Your task to perform on an android device: Go to Wikipedia Image 0: 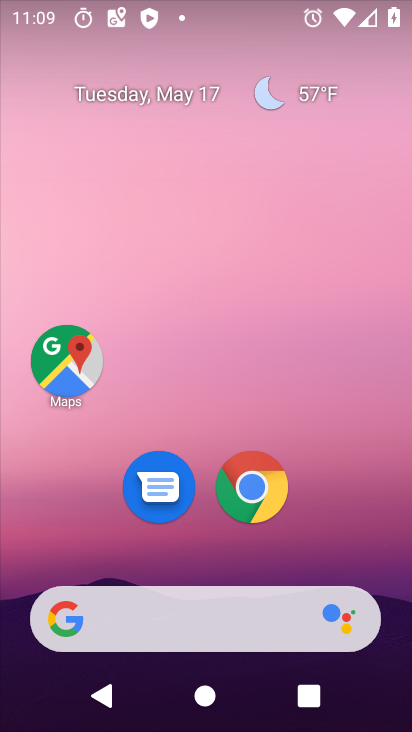
Step 0: click (247, 480)
Your task to perform on an android device: Go to Wikipedia Image 1: 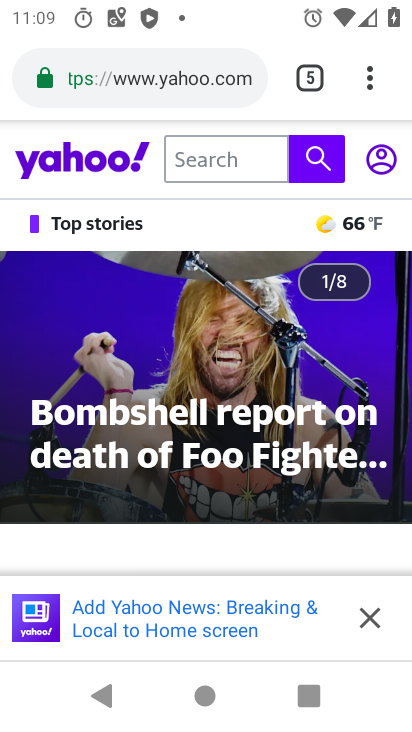
Step 1: click (370, 84)
Your task to perform on an android device: Go to Wikipedia Image 2: 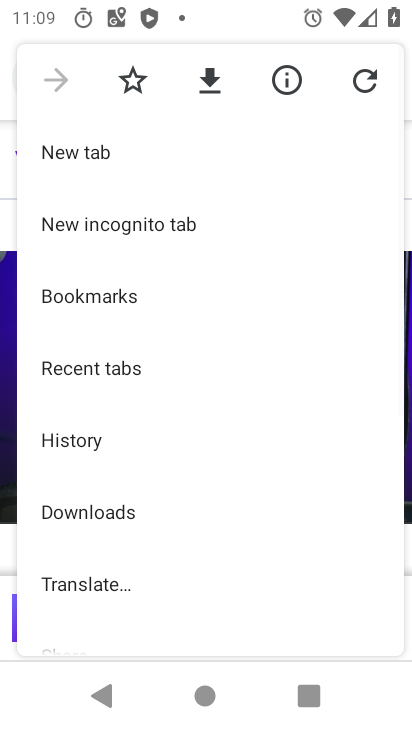
Step 2: click (67, 148)
Your task to perform on an android device: Go to Wikipedia Image 3: 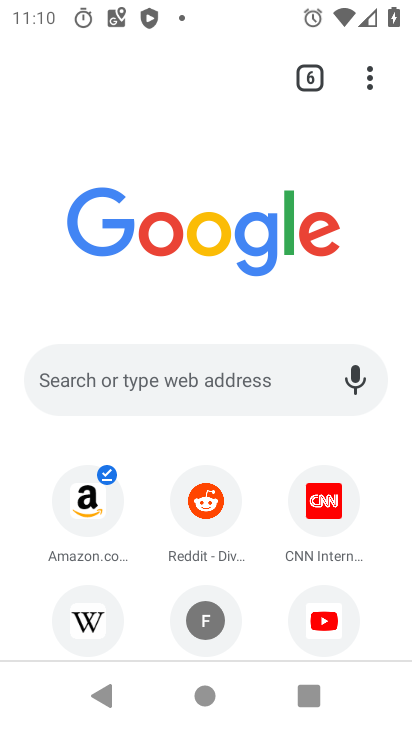
Step 3: click (82, 624)
Your task to perform on an android device: Go to Wikipedia Image 4: 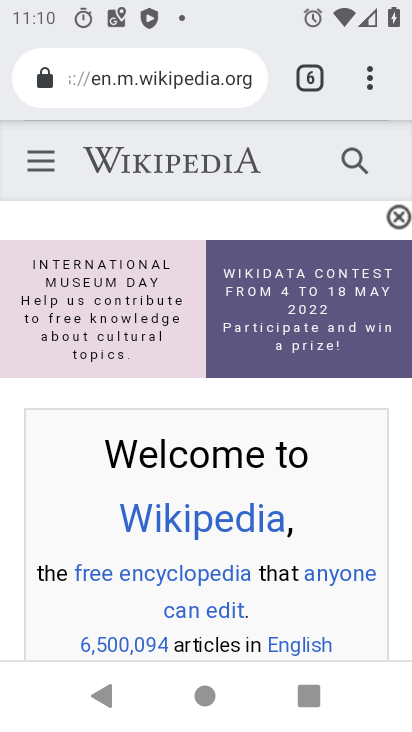
Step 4: task complete